Your task to perform on an android device: Open Google Maps and go to "Timeline" Image 0: 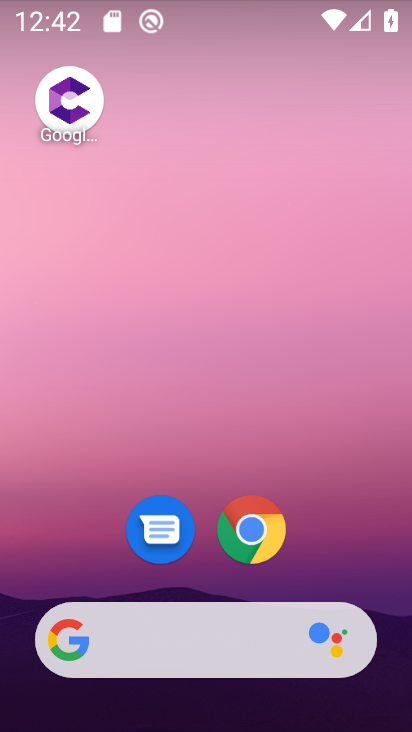
Step 0: click (303, 570)
Your task to perform on an android device: Open Google Maps and go to "Timeline" Image 1: 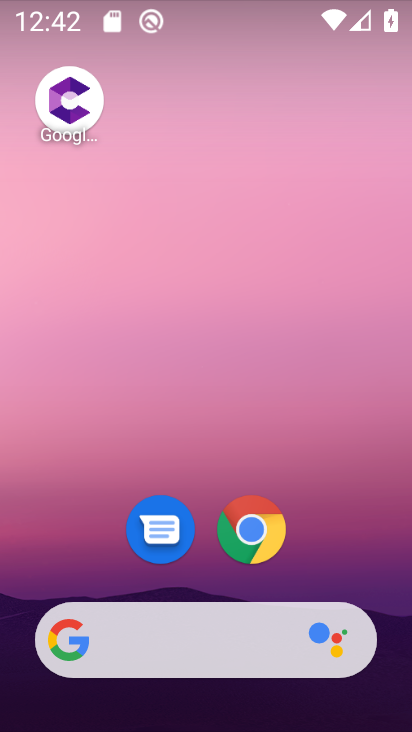
Step 1: drag from (320, 580) to (329, 248)
Your task to perform on an android device: Open Google Maps and go to "Timeline" Image 2: 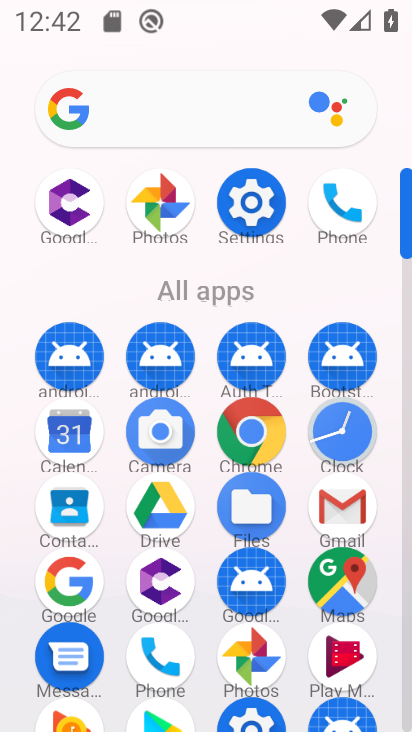
Step 2: drag from (213, 652) to (227, 447)
Your task to perform on an android device: Open Google Maps and go to "Timeline" Image 3: 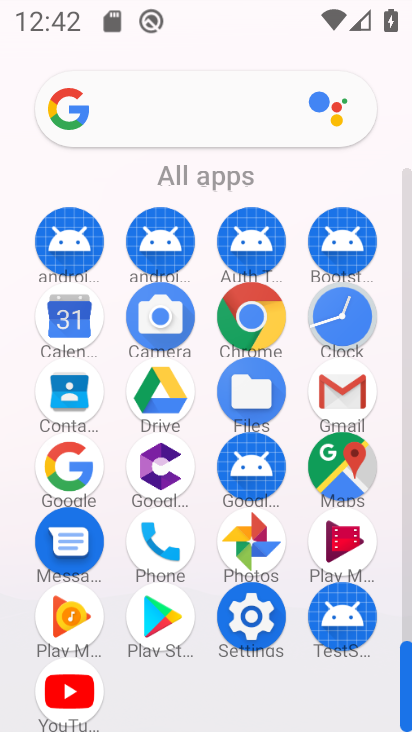
Step 3: click (332, 460)
Your task to perform on an android device: Open Google Maps and go to "Timeline" Image 4: 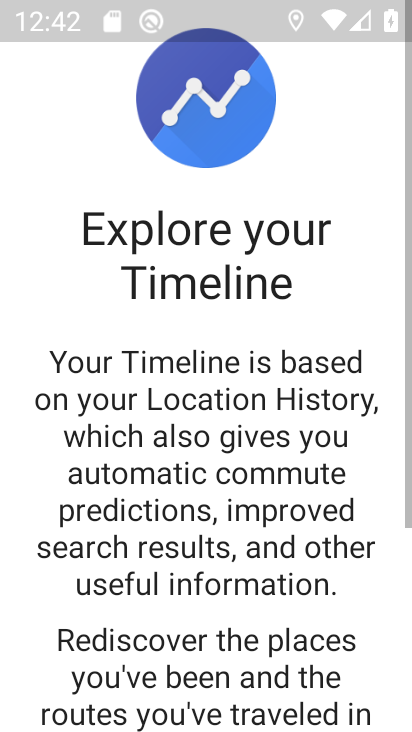
Step 4: drag from (238, 644) to (242, 336)
Your task to perform on an android device: Open Google Maps and go to "Timeline" Image 5: 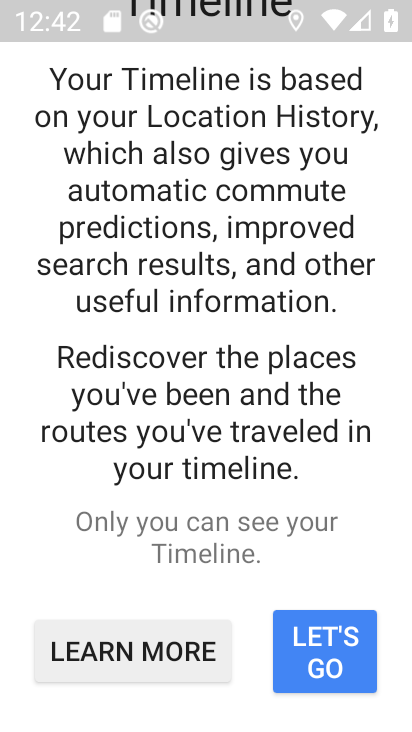
Step 5: click (312, 670)
Your task to perform on an android device: Open Google Maps and go to "Timeline" Image 6: 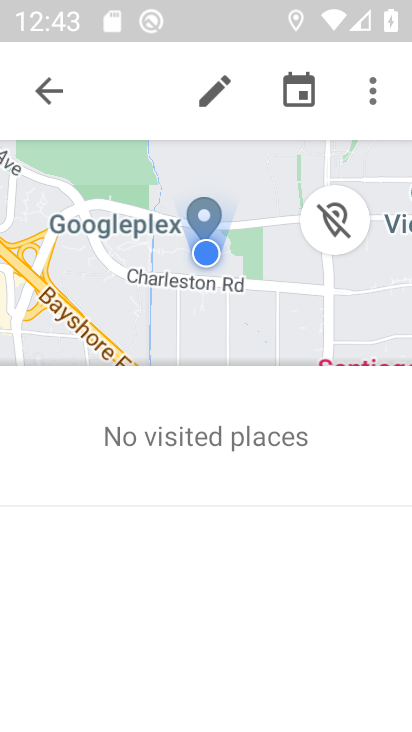
Step 6: task complete